Your task to perform on an android device: change your default location settings in chrome Image 0: 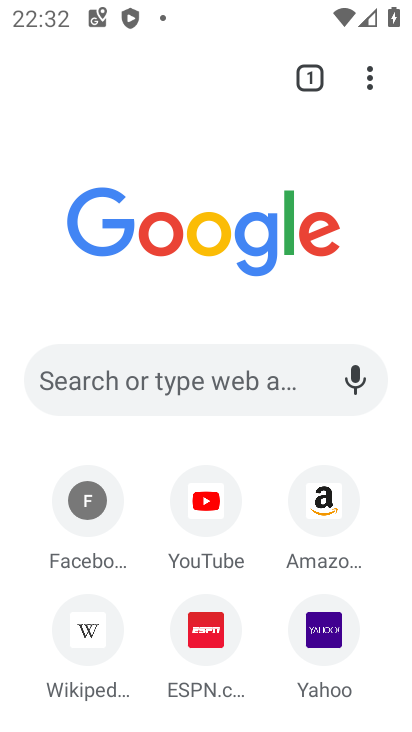
Step 0: click (383, 80)
Your task to perform on an android device: change your default location settings in chrome Image 1: 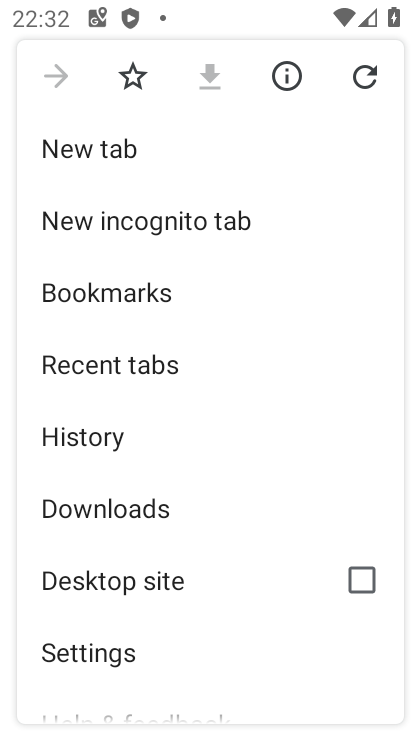
Step 1: click (116, 650)
Your task to perform on an android device: change your default location settings in chrome Image 2: 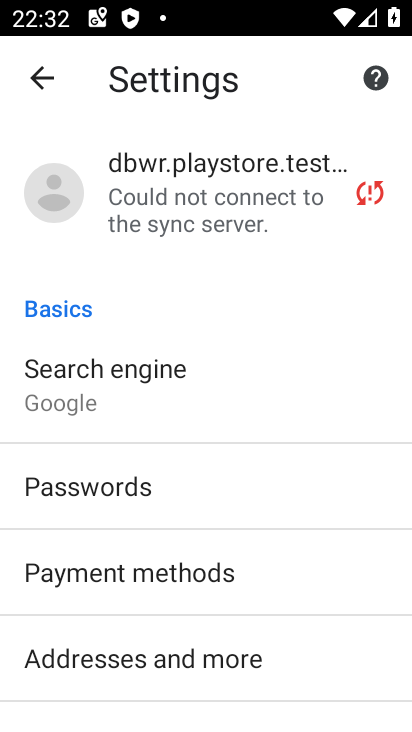
Step 2: drag from (116, 650) to (226, 213)
Your task to perform on an android device: change your default location settings in chrome Image 3: 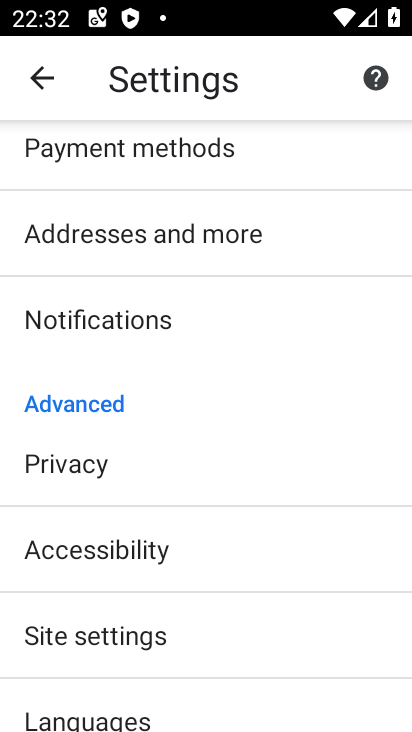
Step 3: drag from (113, 709) to (123, 457)
Your task to perform on an android device: change your default location settings in chrome Image 4: 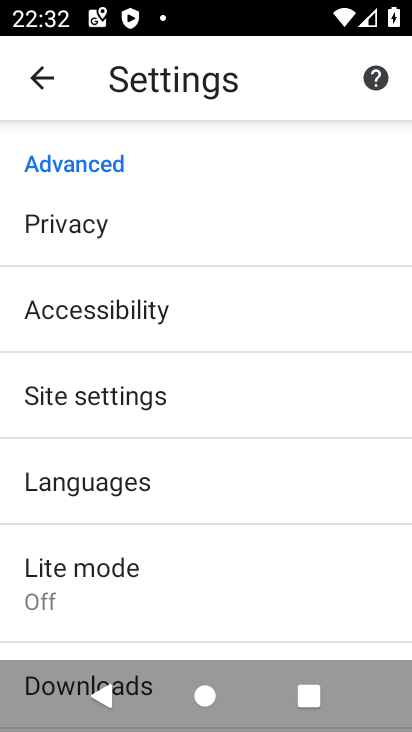
Step 4: drag from (107, 667) to (281, 266)
Your task to perform on an android device: change your default location settings in chrome Image 5: 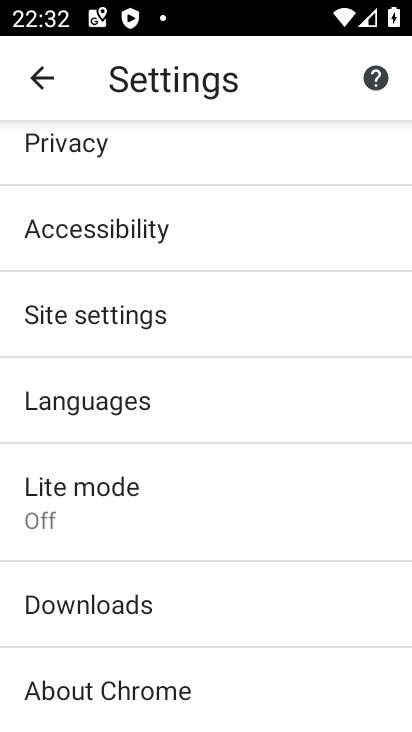
Step 5: click (153, 340)
Your task to perform on an android device: change your default location settings in chrome Image 6: 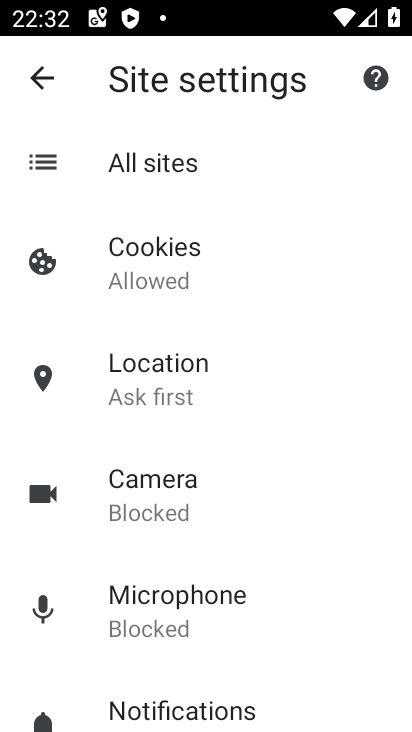
Step 6: click (257, 396)
Your task to perform on an android device: change your default location settings in chrome Image 7: 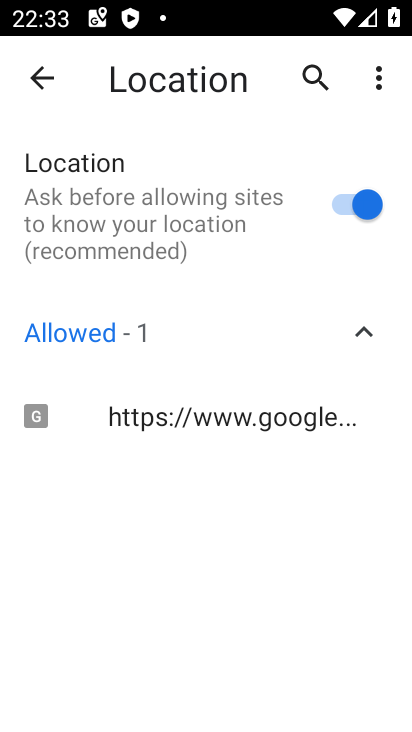
Step 7: click (332, 211)
Your task to perform on an android device: change your default location settings in chrome Image 8: 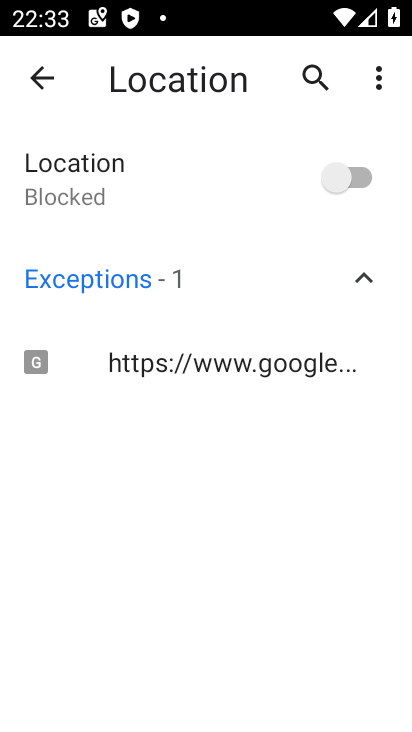
Step 8: task complete